Your task to perform on an android device: Open the phone app and click the voicemail tab. Image 0: 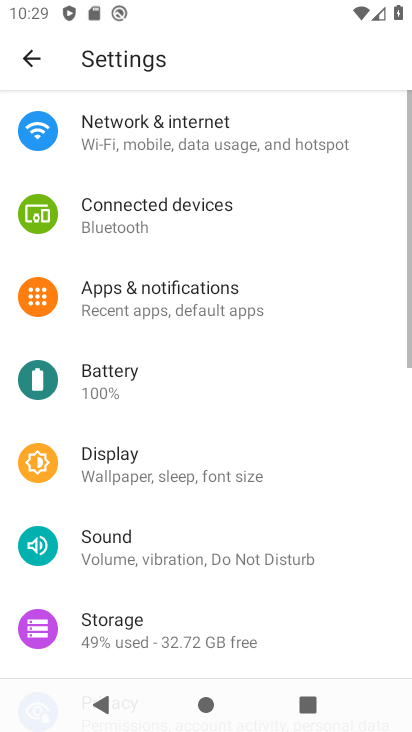
Step 0: press home button
Your task to perform on an android device: Open the phone app and click the voicemail tab. Image 1: 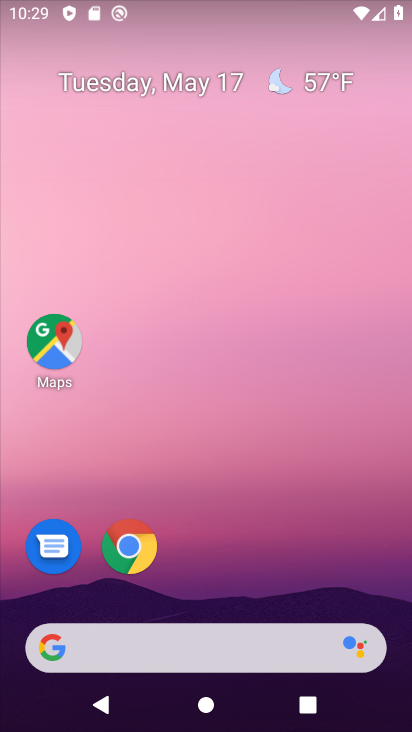
Step 1: drag from (253, 565) to (279, 125)
Your task to perform on an android device: Open the phone app and click the voicemail tab. Image 2: 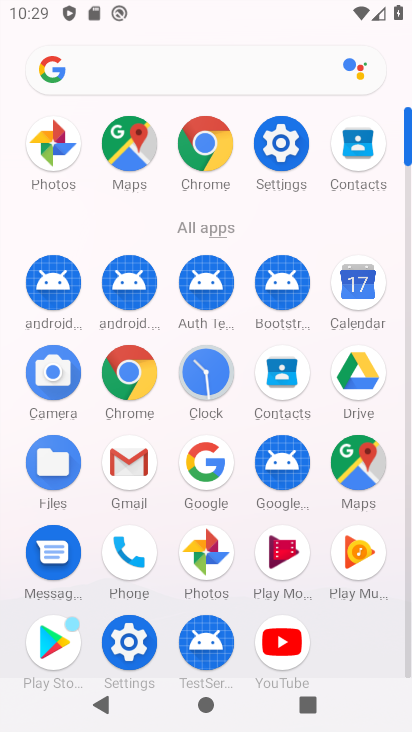
Step 2: click (114, 557)
Your task to perform on an android device: Open the phone app and click the voicemail tab. Image 3: 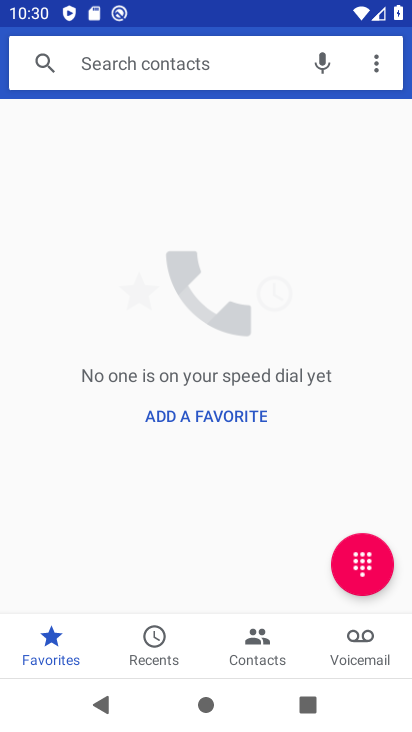
Step 3: click (361, 641)
Your task to perform on an android device: Open the phone app and click the voicemail tab. Image 4: 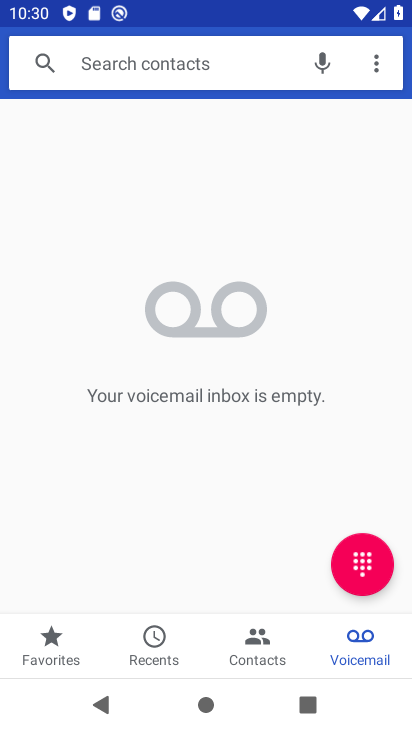
Step 4: task complete